Your task to perform on an android device: Toggle the flashlight Image 0: 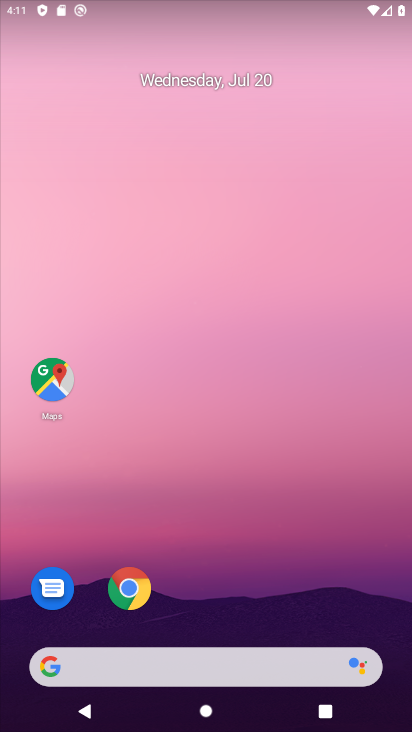
Step 0: drag from (210, 625) to (294, 237)
Your task to perform on an android device: Toggle the flashlight Image 1: 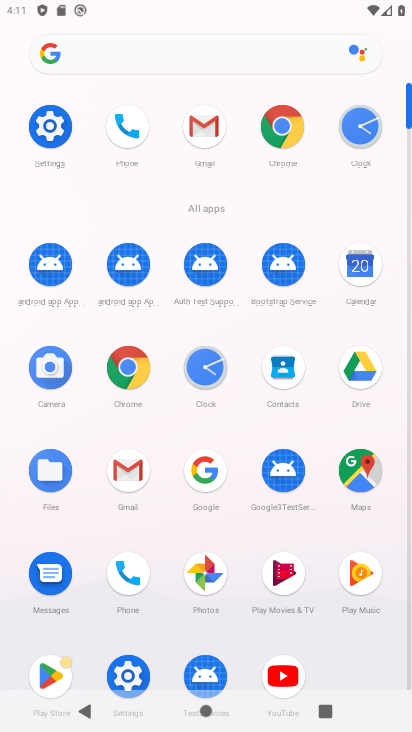
Step 1: click (60, 119)
Your task to perform on an android device: Toggle the flashlight Image 2: 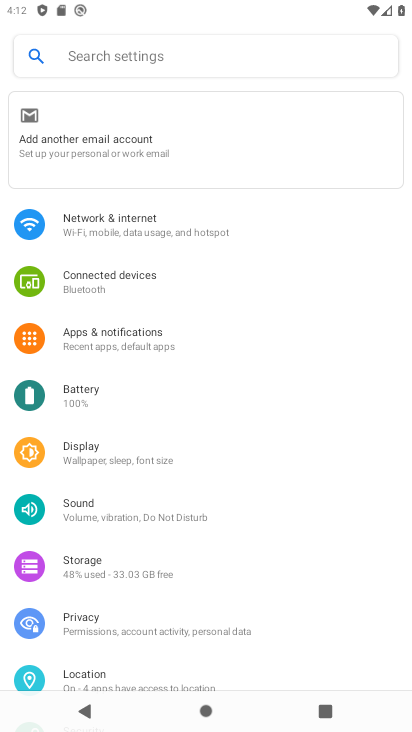
Step 2: click (124, 49)
Your task to perform on an android device: Toggle the flashlight Image 3: 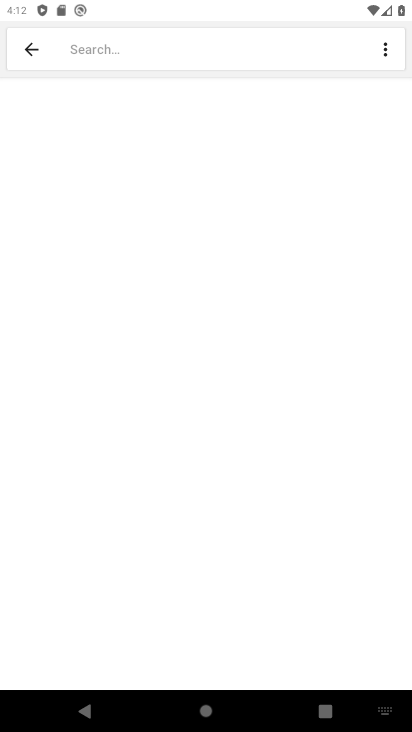
Step 3: type "flashlight"
Your task to perform on an android device: Toggle the flashlight Image 4: 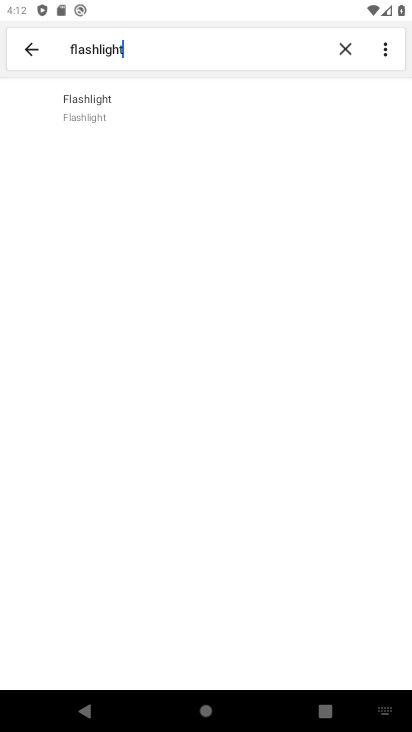
Step 4: click (133, 93)
Your task to perform on an android device: Toggle the flashlight Image 5: 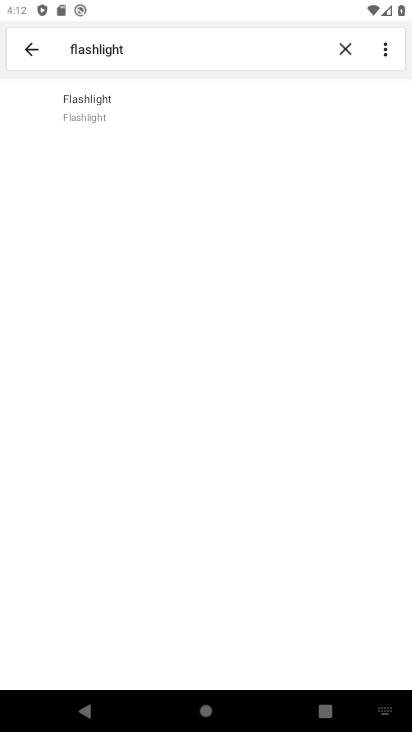
Step 5: task complete